Your task to perform on an android device: Open maps Image 0: 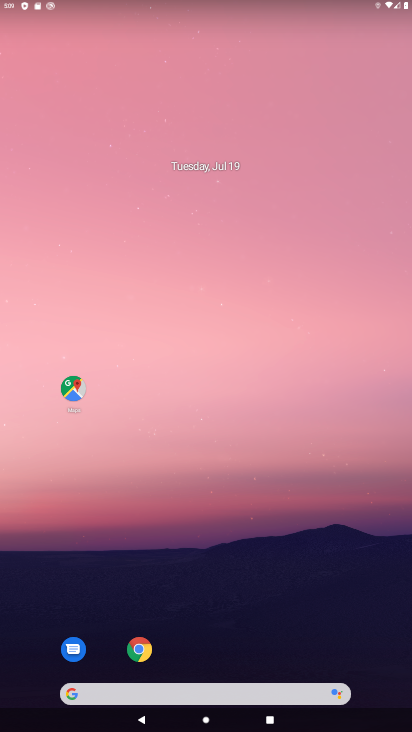
Step 0: drag from (316, 561) to (182, 59)
Your task to perform on an android device: Open maps Image 1: 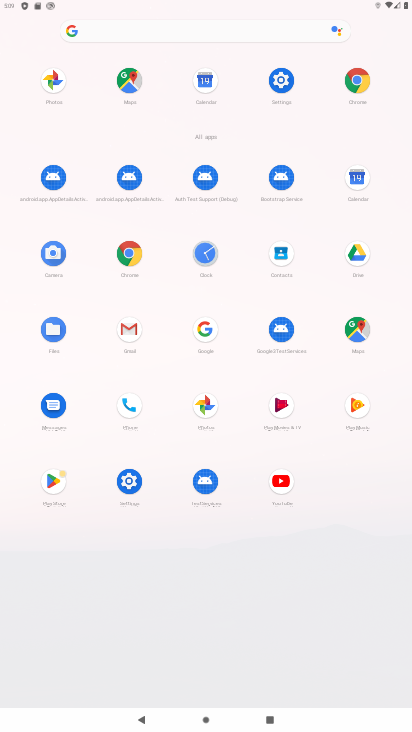
Step 1: click (355, 328)
Your task to perform on an android device: Open maps Image 2: 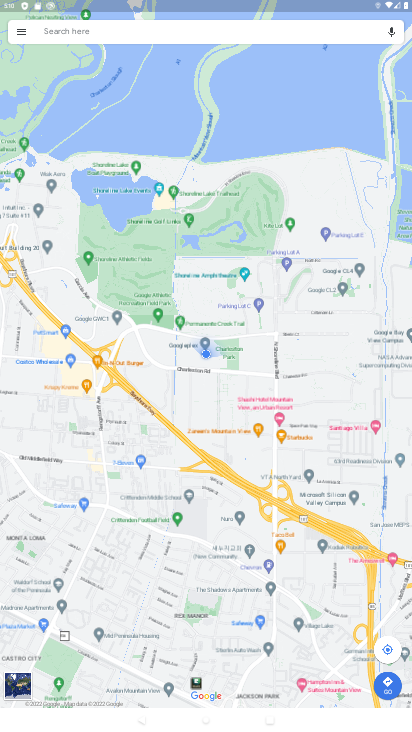
Step 2: task complete